Your task to perform on an android device: Open notification settings Image 0: 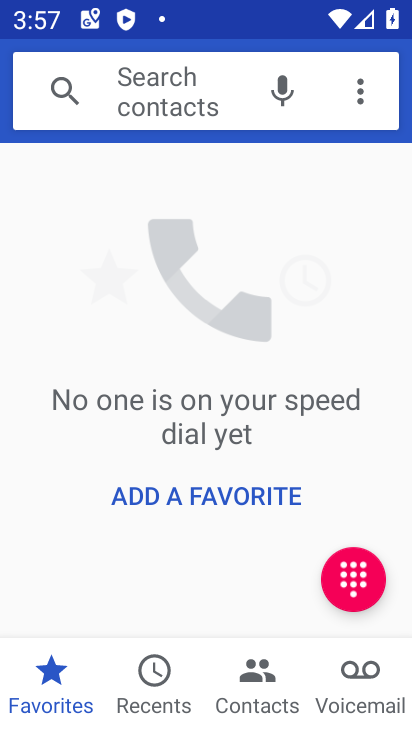
Step 0: press home button
Your task to perform on an android device: Open notification settings Image 1: 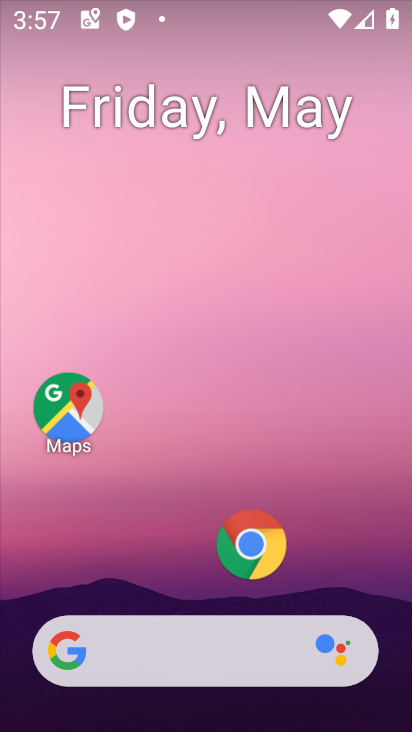
Step 1: drag from (203, 561) to (252, 151)
Your task to perform on an android device: Open notification settings Image 2: 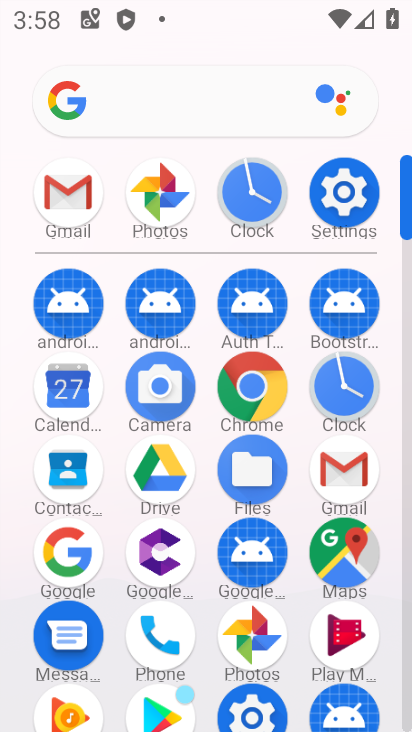
Step 2: click (343, 177)
Your task to perform on an android device: Open notification settings Image 3: 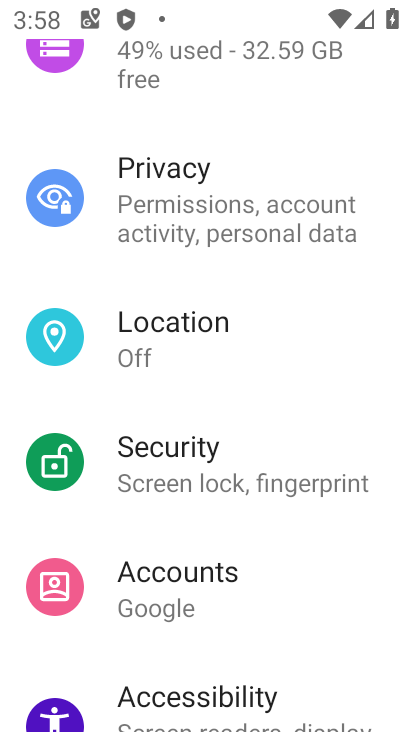
Step 3: drag from (245, 203) to (285, 569)
Your task to perform on an android device: Open notification settings Image 4: 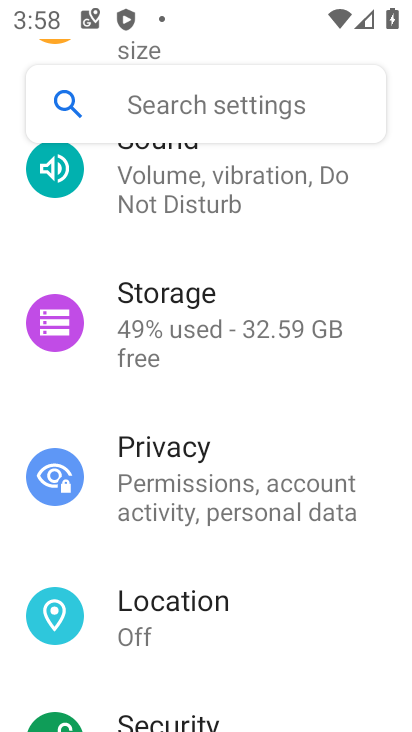
Step 4: drag from (267, 230) to (282, 498)
Your task to perform on an android device: Open notification settings Image 5: 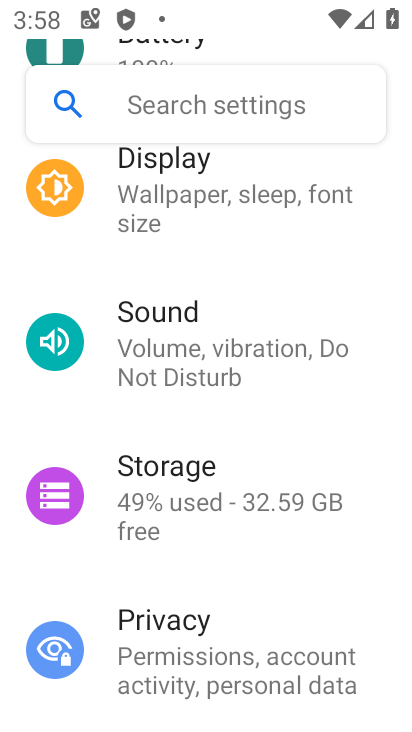
Step 5: drag from (296, 265) to (296, 467)
Your task to perform on an android device: Open notification settings Image 6: 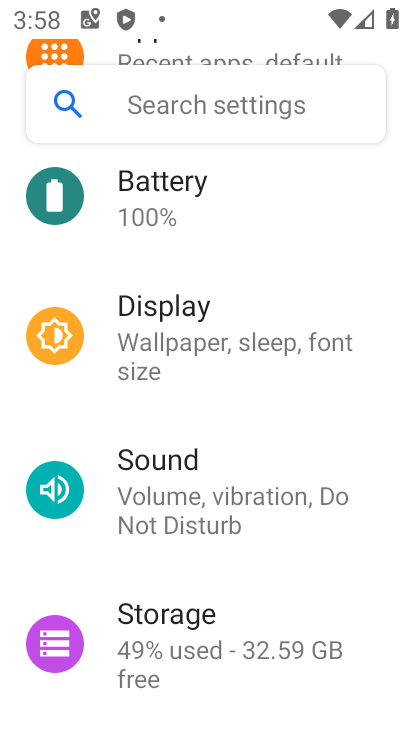
Step 6: drag from (274, 212) to (274, 495)
Your task to perform on an android device: Open notification settings Image 7: 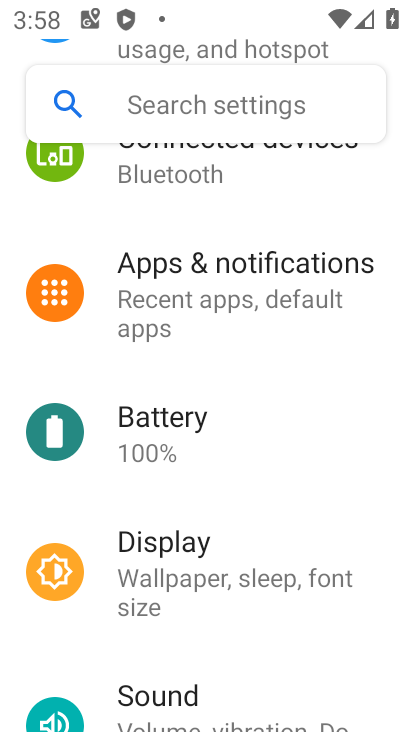
Step 7: click (238, 291)
Your task to perform on an android device: Open notification settings Image 8: 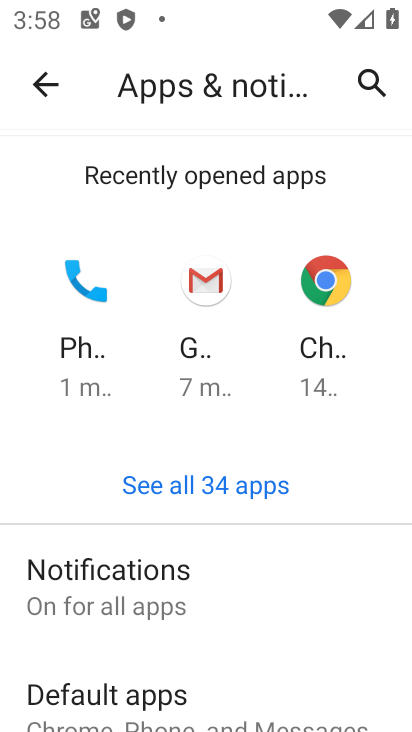
Step 8: click (104, 609)
Your task to perform on an android device: Open notification settings Image 9: 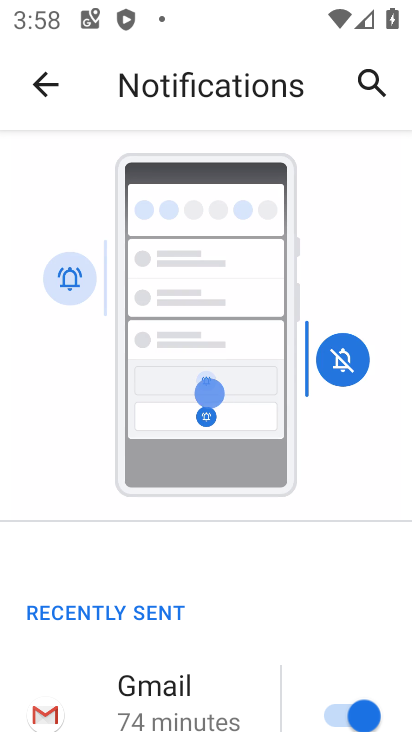
Step 9: task complete